Your task to perform on an android device: Open sound settings Image 0: 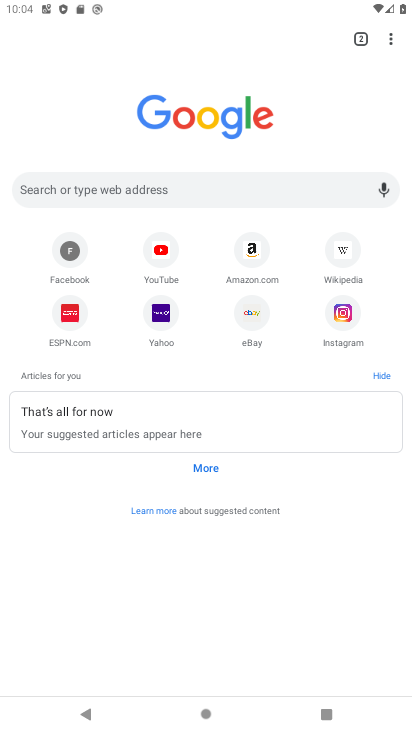
Step 0: press home button
Your task to perform on an android device: Open sound settings Image 1: 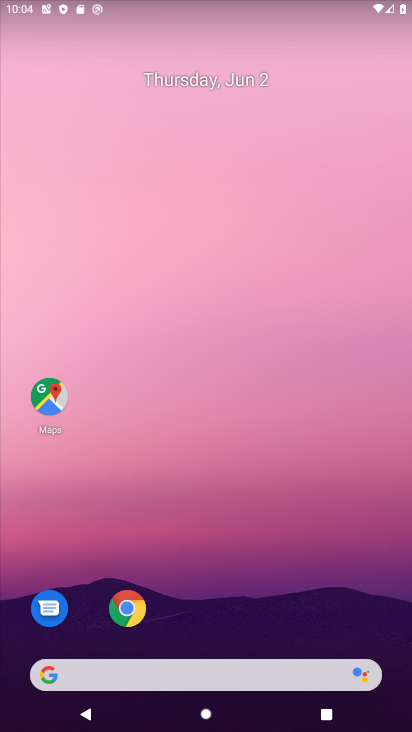
Step 1: drag from (199, 564) to (291, 96)
Your task to perform on an android device: Open sound settings Image 2: 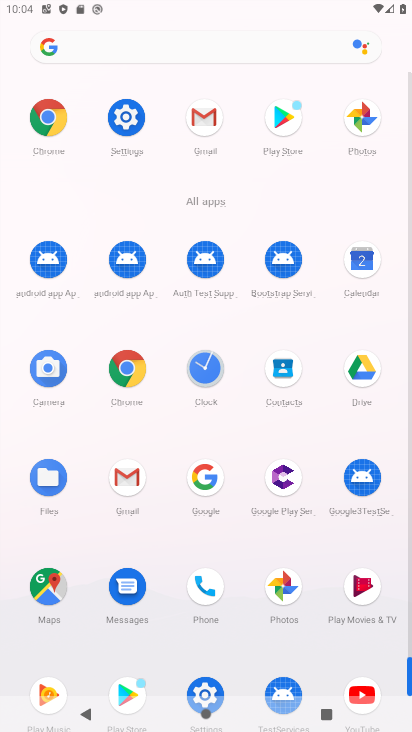
Step 2: drag from (216, 615) to (239, 530)
Your task to perform on an android device: Open sound settings Image 3: 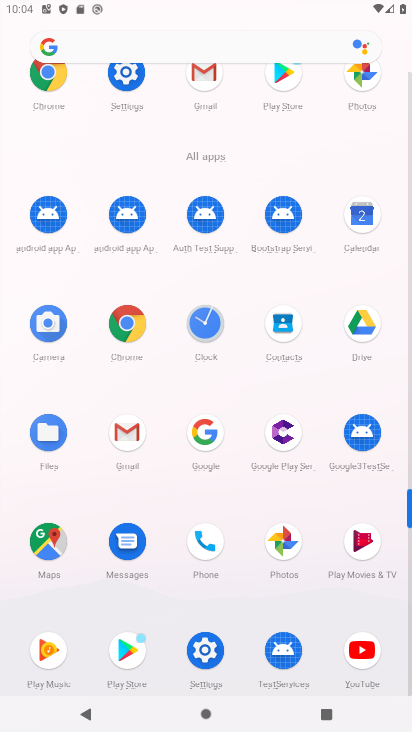
Step 3: click (207, 651)
Your task to perform on an android device: Open sound settings Image 4: 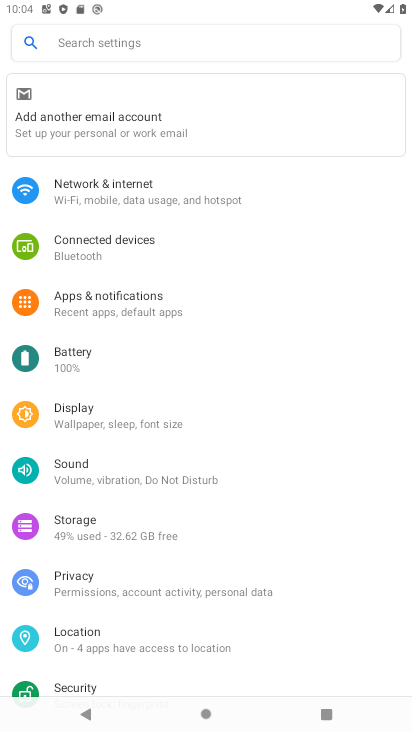
Step 4: click (122, 477)
Your task to perform on an android device: Open sound settings Image 5: 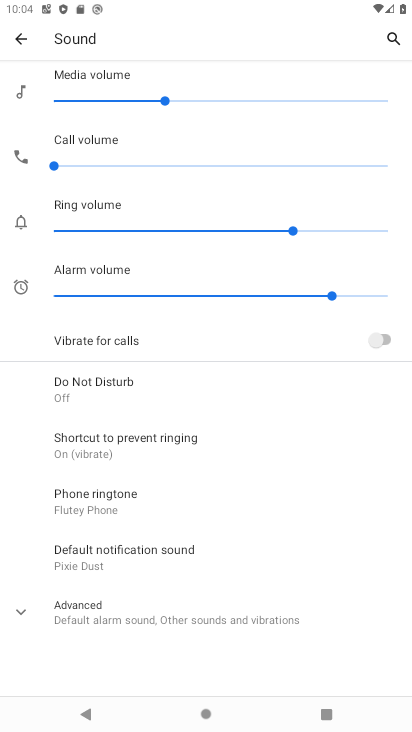
Step 5: task complete